Your task to perform on an android device: remove spam from my inbox in the gmail app Image 0: 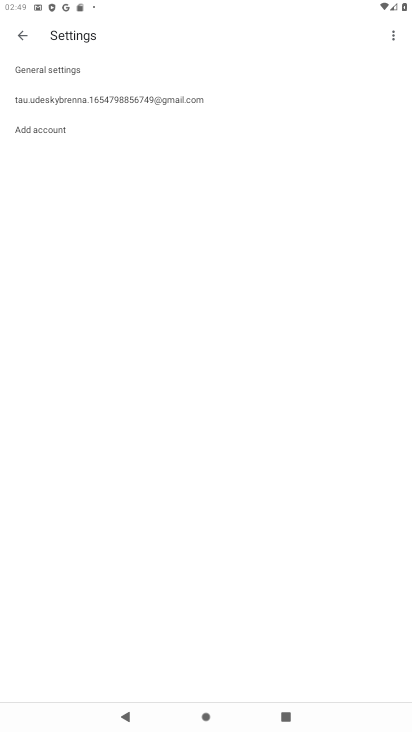
Step 0: click (21, 38)
Your task to perform on an android device: remove spam from my inbox in the gmail app Image 1: 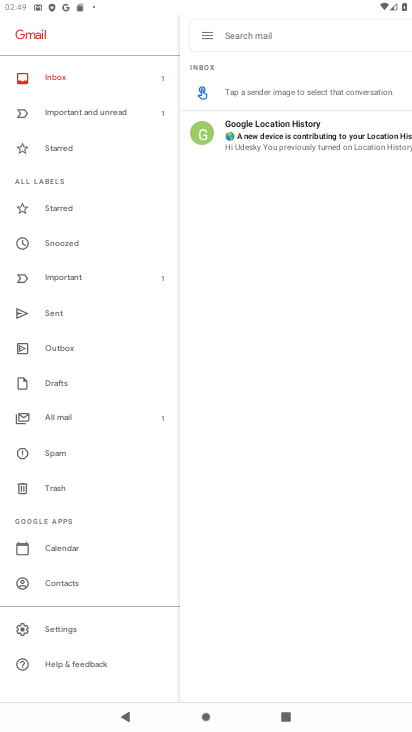
Step 1: click (63, 454)
Your task to perform on an android device: remove spam from my inbox in the gmail app Image 2: 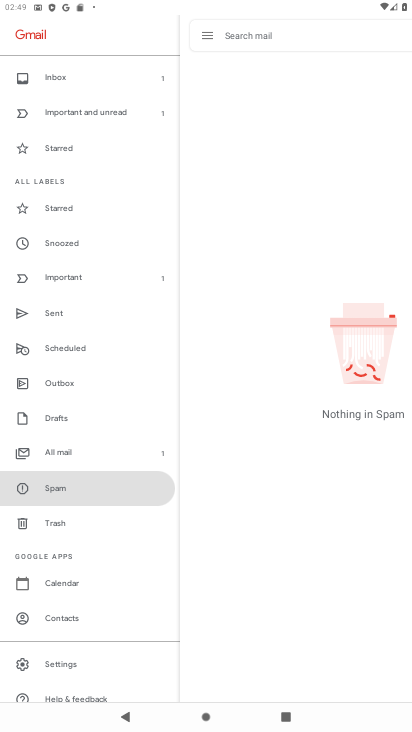
Step 2: task complete